Your task to perform on an android device: Is it going to rain tomorrow? Image 0: 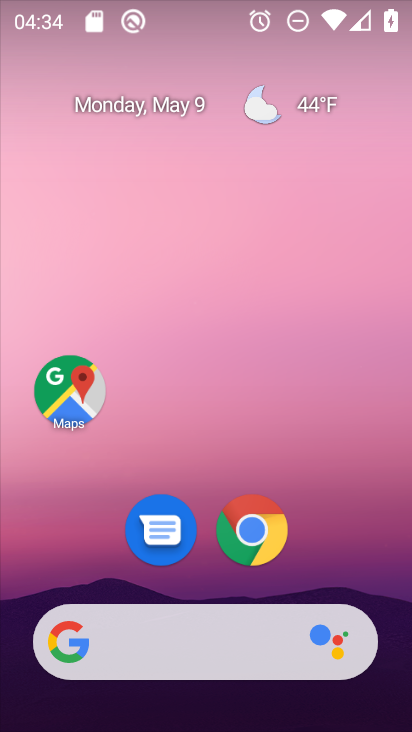
Step 0: press home button
Your task to perform on an android device: Is it going to rain tomorrow? Image 1: 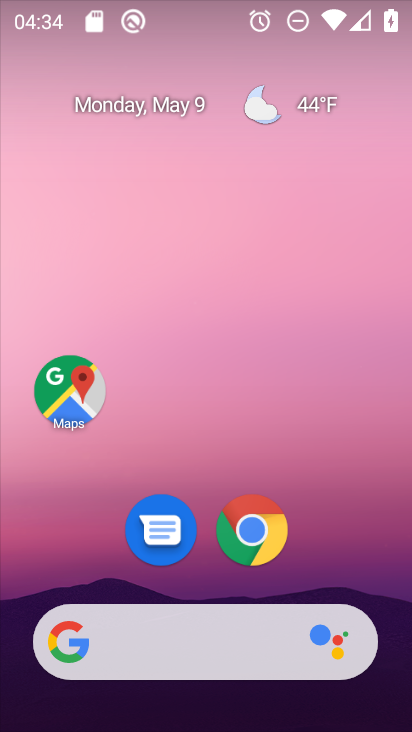
Step 1: click (305, 103)
Your task to perform on an android device: Is it going to rain tomorrow? Image 2: 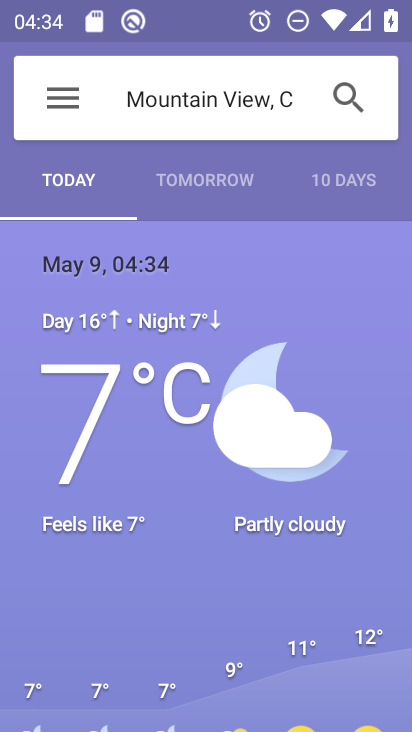
Step 2: click (201, 184)
Your task to perform on an android device: Is it going to rain tomorrow? Image 3: 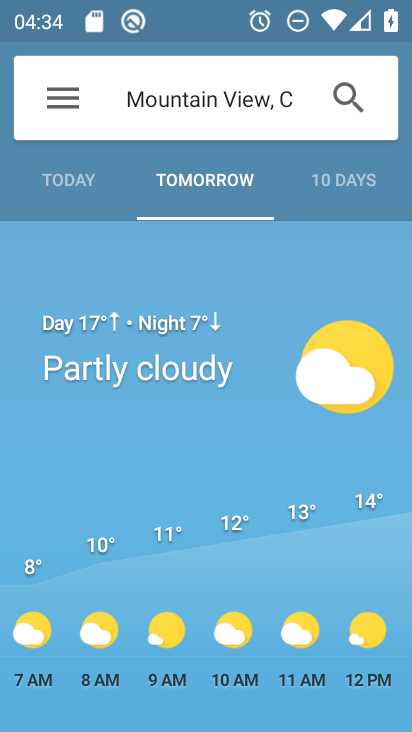
Step 3: task complete